Your task to perform on an android device: turn pop-ups off in chrome Image 0: 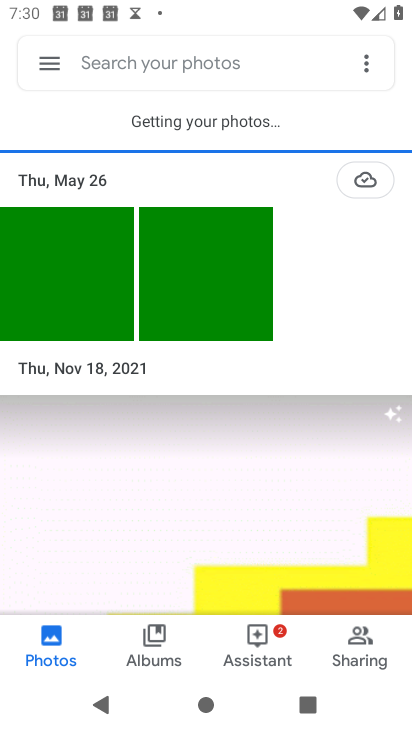
Step 0: press home button
Your task to perform on an android device: turn pop-ups off in chrome Image 1: 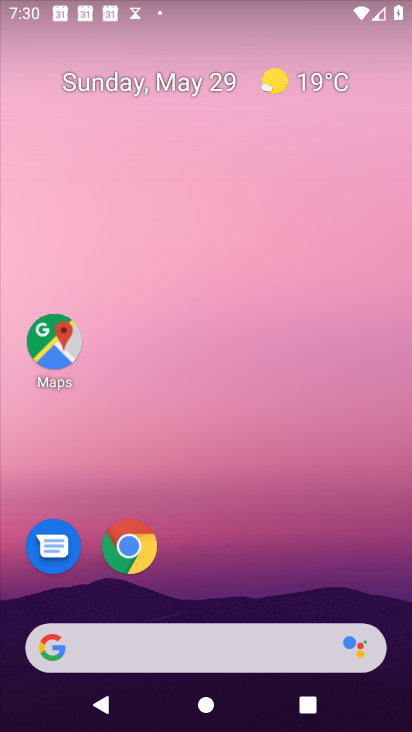
Step 1: click (129, 556)
Your task to perform on an android device: turn pop-ups off in chrome Image 2: 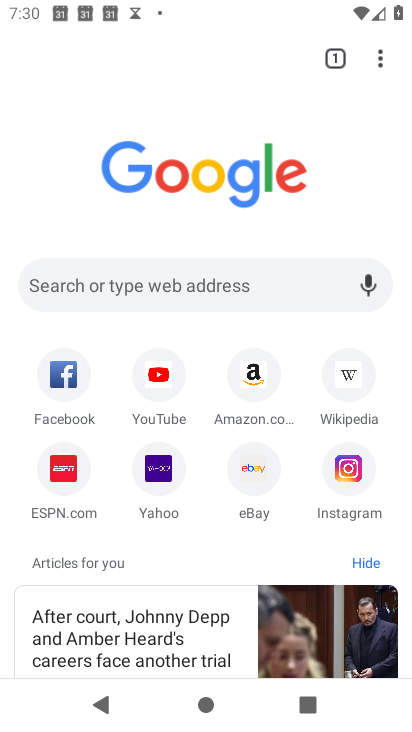
Step 2: click (381, 62)
Your task to perform on an android device: turn pop-ups off in chrome Image 3: 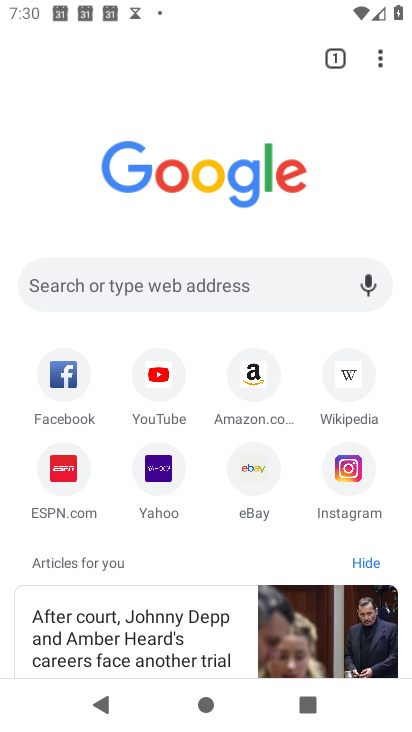
Step 3: click (379, 57)
Your task to perform on an android device: turn pop-ups off in chrome Image 4: 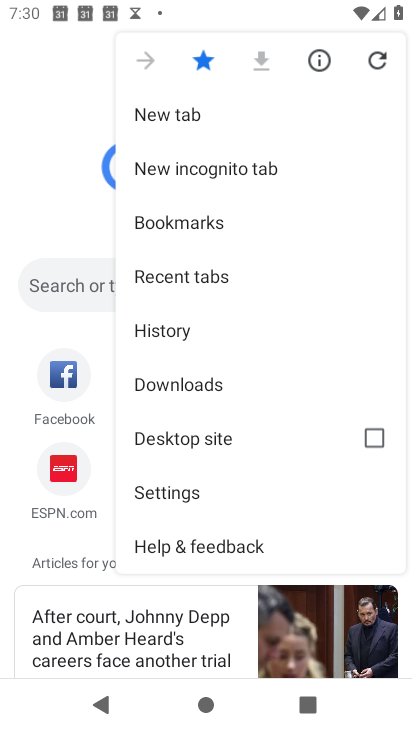
Step 4: click (159, 496)
Your task to perform on an android device: turn pop-ups off in chrome Image 5: 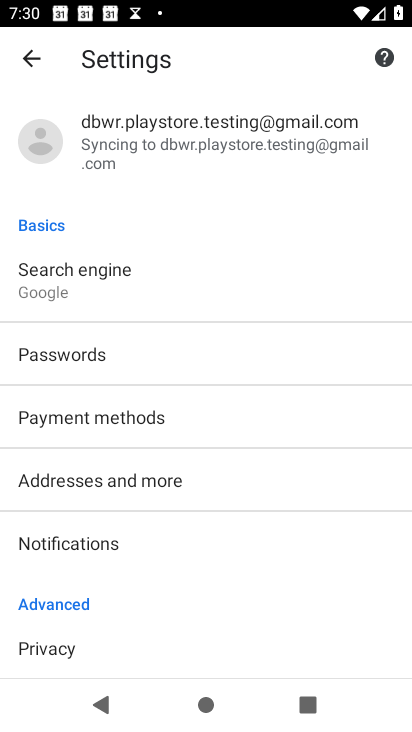
Step 5: drag from (132, 592) to (197, 355)
Your task to perform on an android device: turn pop-ups off in chrome Image 6: 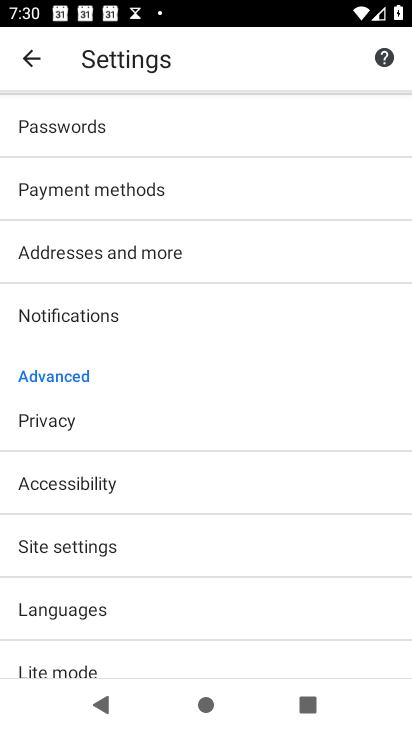
Step 6: click (91, 557)
Your task to perform on an android device: turn pop-ups off in chrome Image 7: 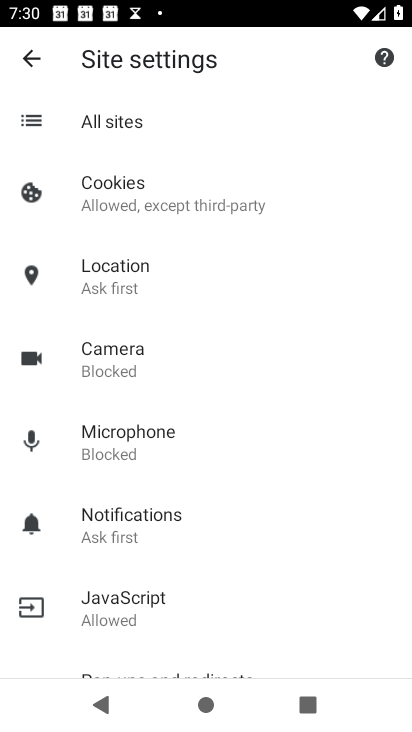
Step 7: drag from (144, 606) to (186, 253)
Your task to perform on an android device: turn pop-ups off in chrome Image 8: 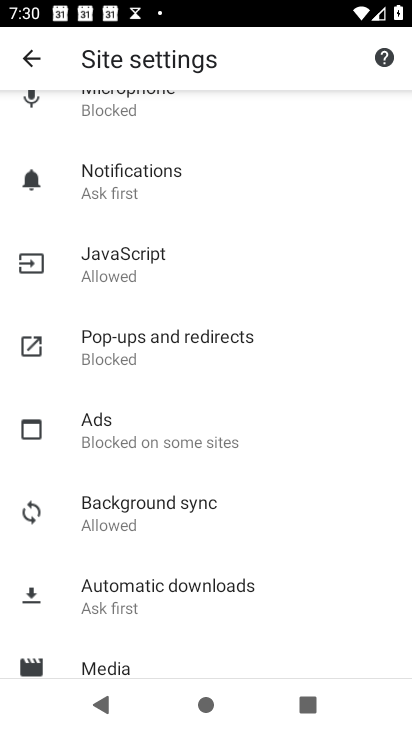
Step 8: click (140, 355)
Your task to perform on an android device: turn pop-ups off in chrome Image 9: 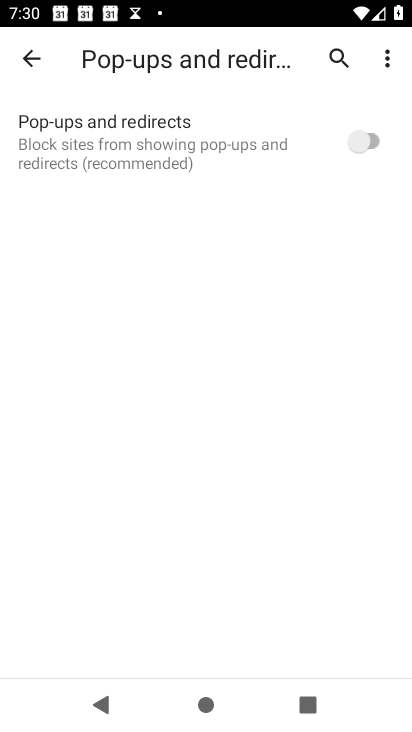
Step 9: task complete